Your task to perform on an android device: Open maps Image 0: 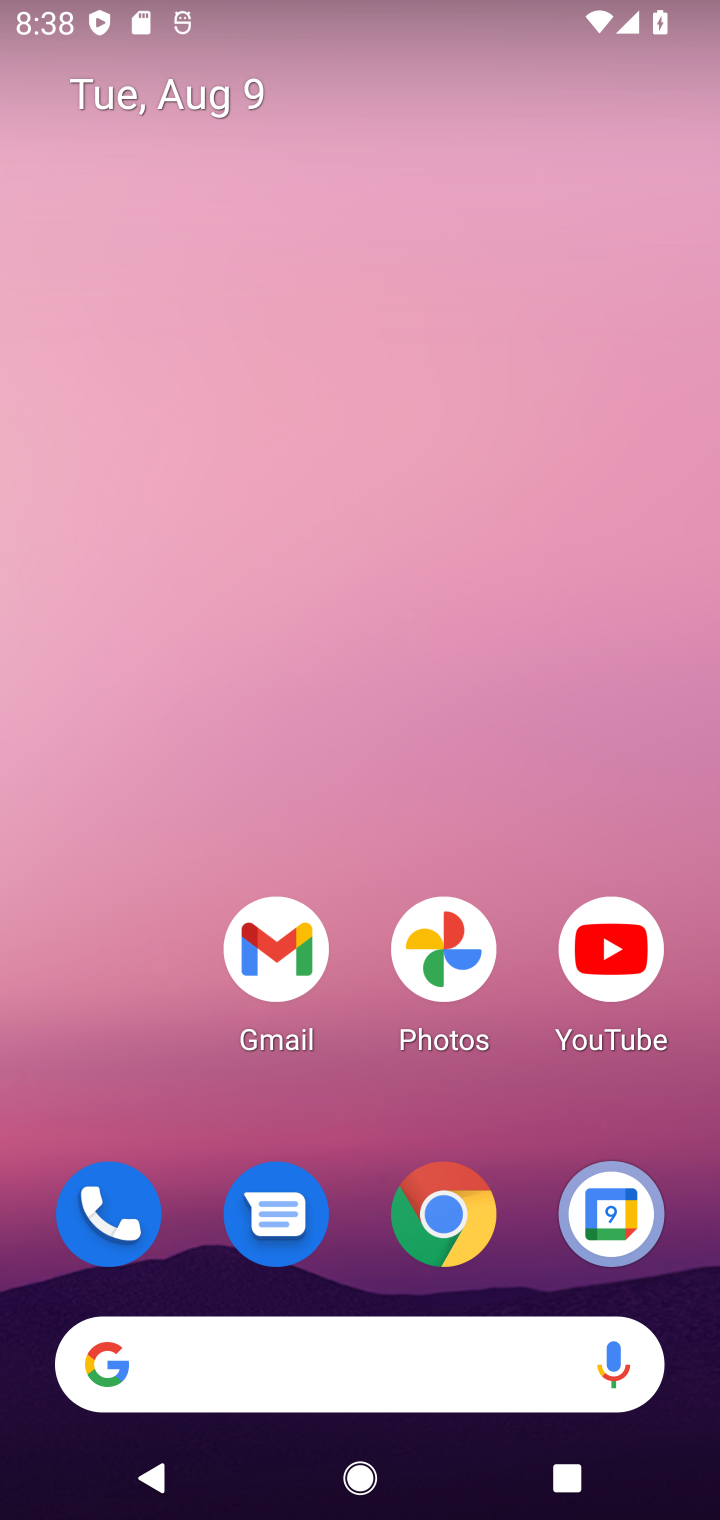
Step 0: drag from (134, 1272) to (518, 560)
Your task to perform on an android device: Open maps Image 1: 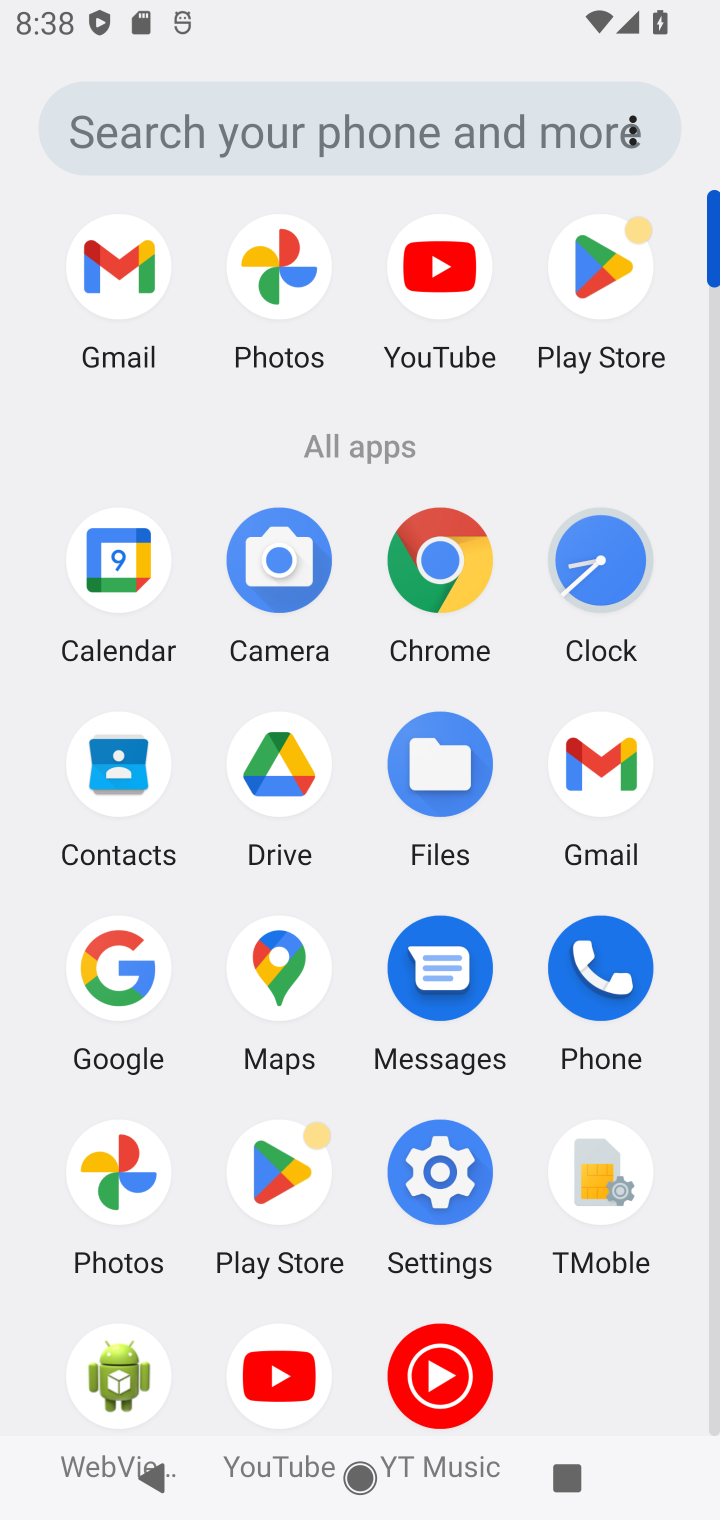
Step 1: click (273, 972)
Your task to perform on an android device: Open maps Image 2: 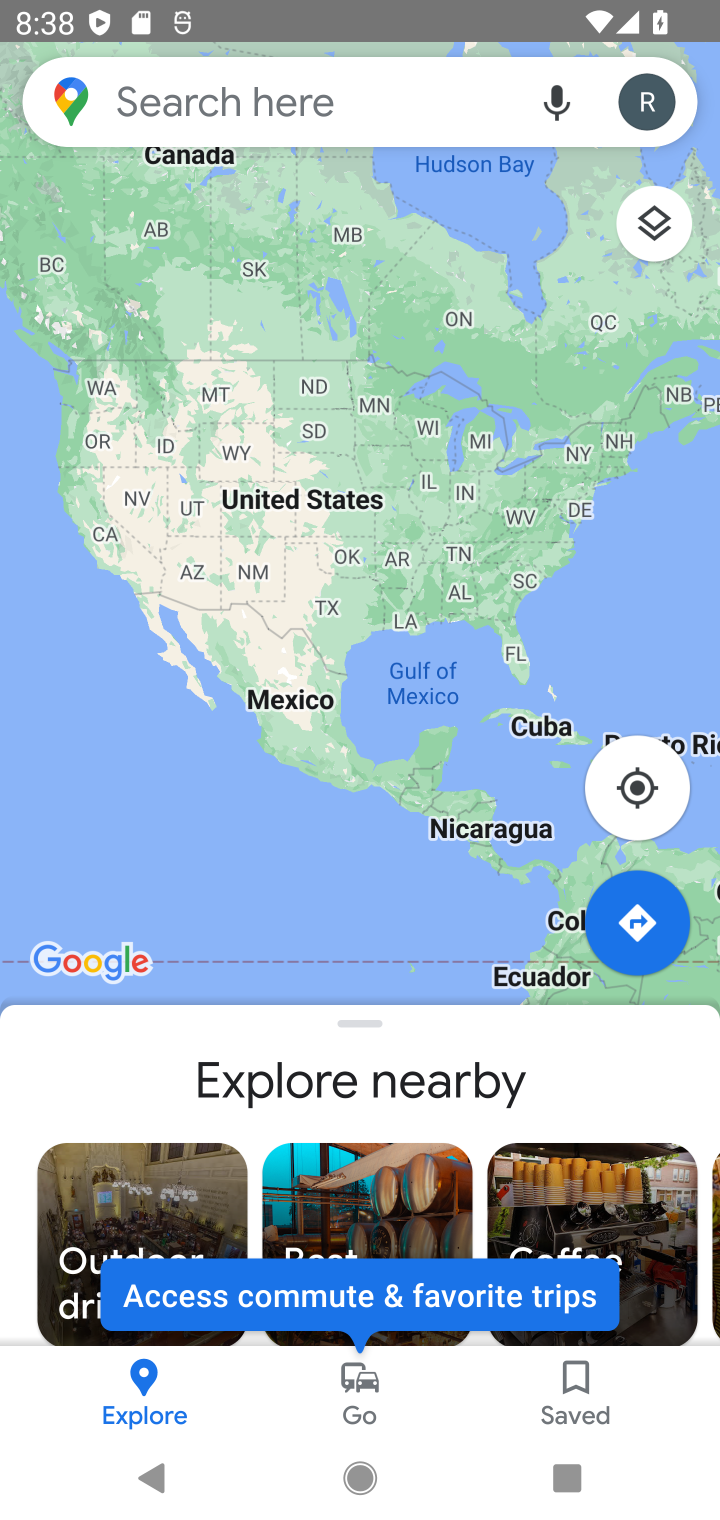
Step 2: task complete